Your task to perform on an android device: turn on showing notifications on the lock screen Image 0: 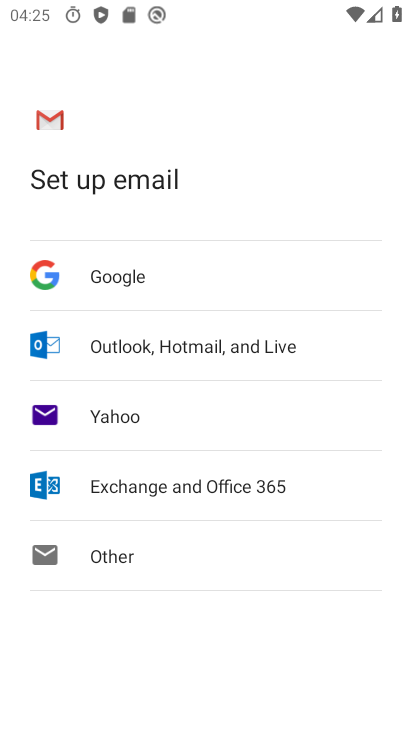
Step 0: press home button
Your task to perform on an android device: turn on showing notifications on the lock screen Image 1: 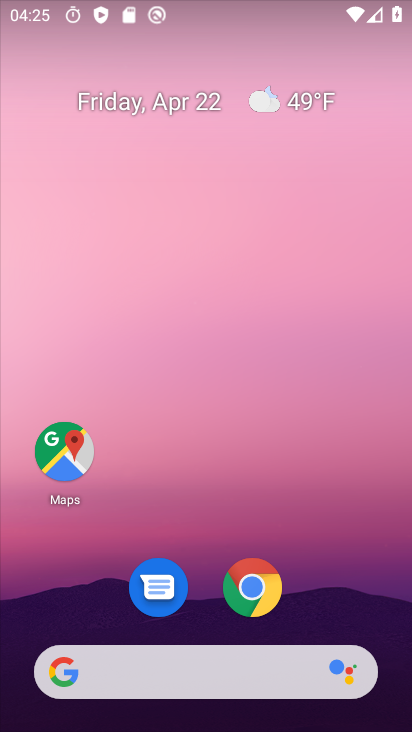
Step 1: drag from (372, 601) to (395, 59)
Your task to perform on an android device: turn on showing notifications on the lock screen Image 2: 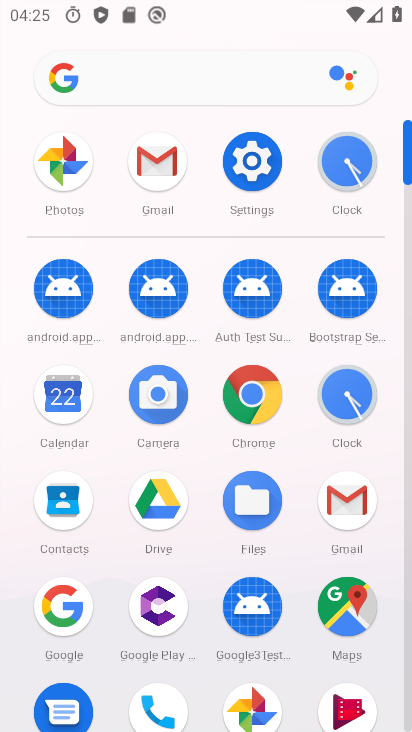
Step 2: click (253, 169)
Your task to perform on an android device: turn on showing notifications on the lock screen Image 3: 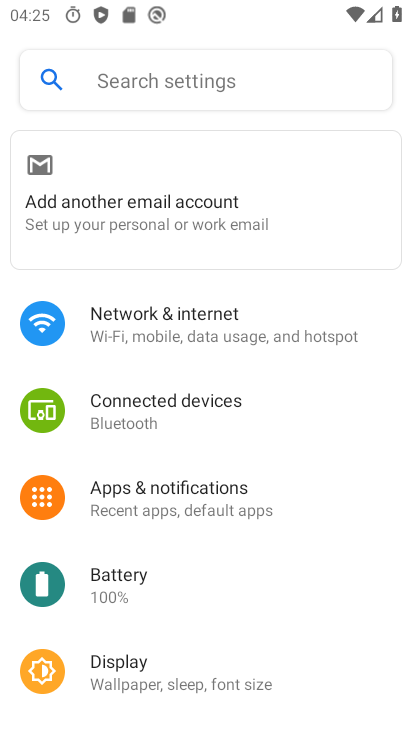
Step 3: click (199, 505)
Your task to perform on an android device: turn on showing notifications on the lock screen Image 4: 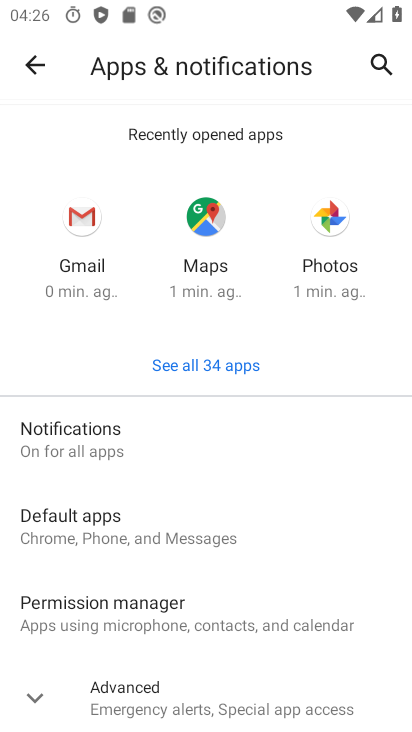
Step 4: click (70, 439)
Your task to perform on an android device: turn on showing notifications on the lock screen Image 5: 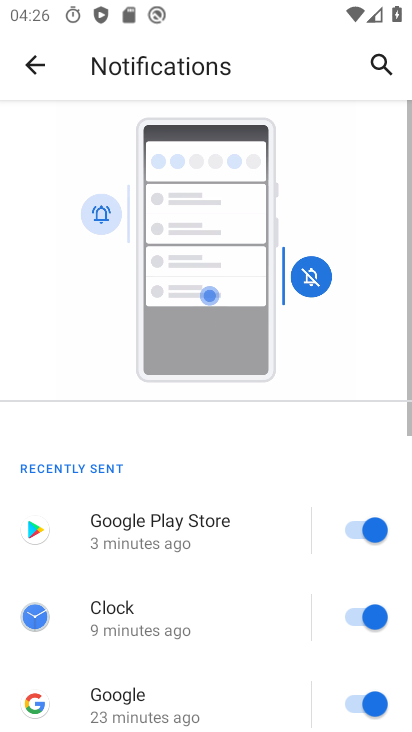
Step 5: drag from (203, 603) to (206, 168)
Your task to perform on an android device: turn on showing notifications on the lock screen Image 6: 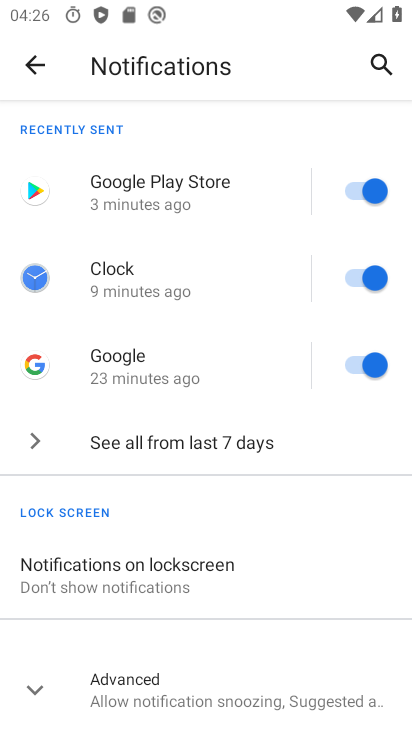
Step 6: drag from (206, 598) to (195, 270)
Your task to perform on an android device: turn on showing notifications on the lock screen Image 7: 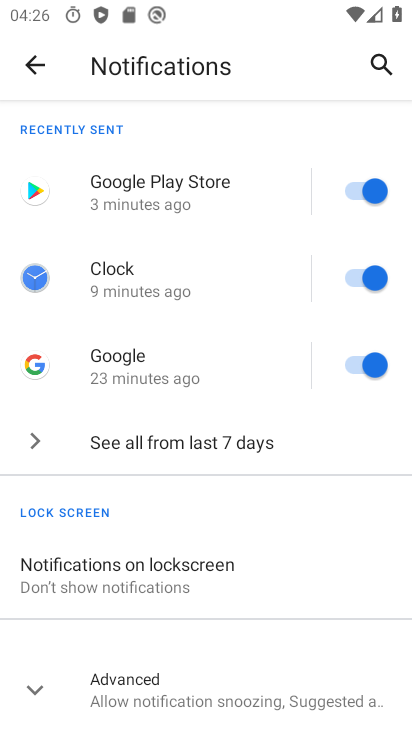
Step 7: click (128, 587)
Your task to perform on an android device: turn on showing notifications on the lock screen Image 8: 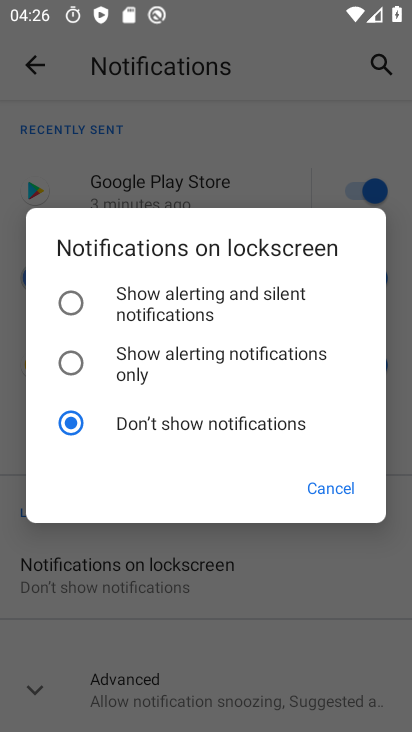
Step 8: click (69, 310)
Your task to perform on an android device: turn on showing notifications on the lock screen Image 9: 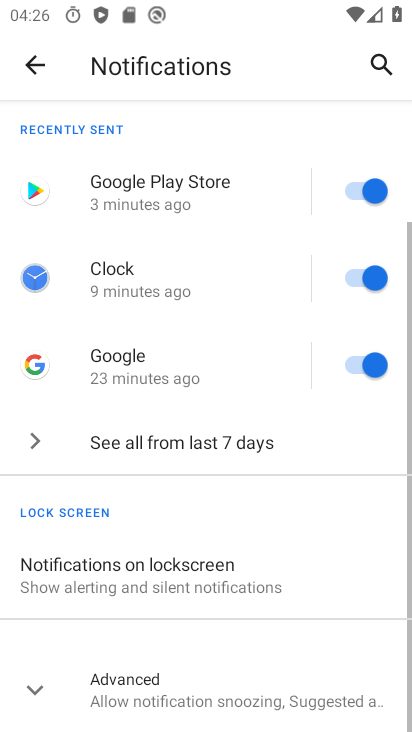
Step 9: task complete